Your task to perform on an android device: search for starred emails in the gmail app Image 0: 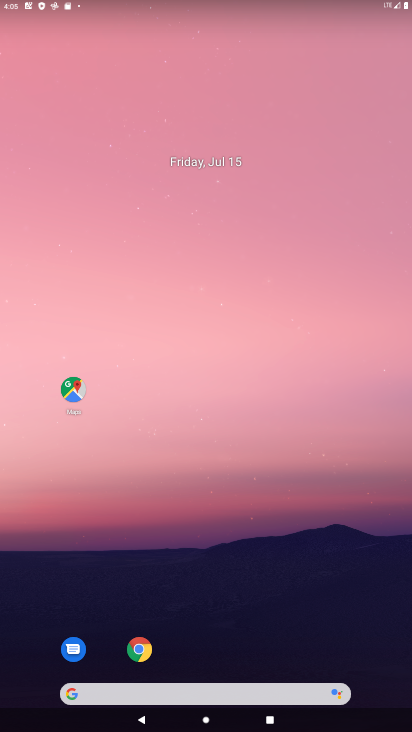
Step 0: drag from (247, 614) to (264, 41)
Your task to perform on an android device: search for starred emails in the gmail app Image 1: 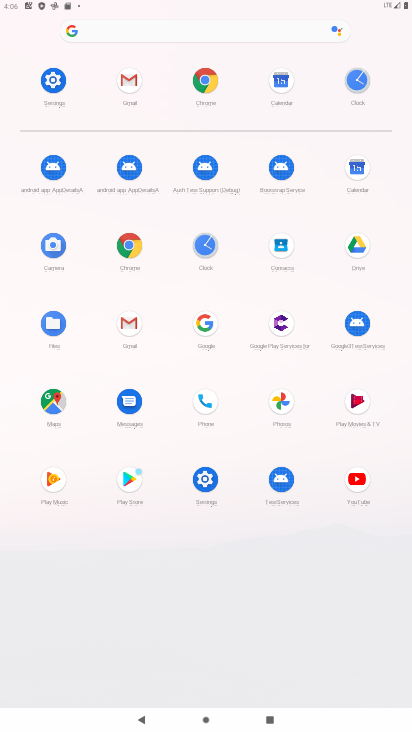
Step 1: click (133, 79)
Your task to perform on an android device: search for starred emails in the gmail app Image 2: 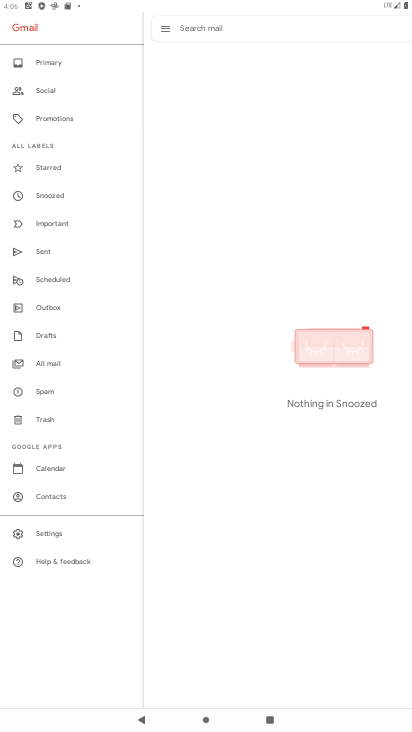
Step 2: click (38, 173)
Your task to perform on an android device: search for starred emails in the gmail app Image 3: 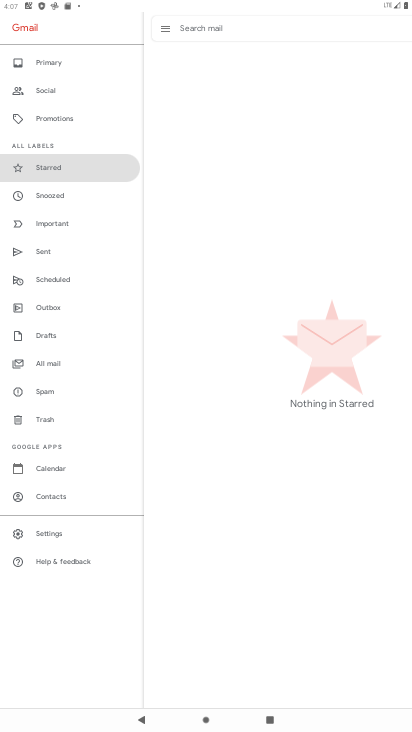
Step 3: task complete